Your task to perform on an android device: all mails in gmail Image 0: 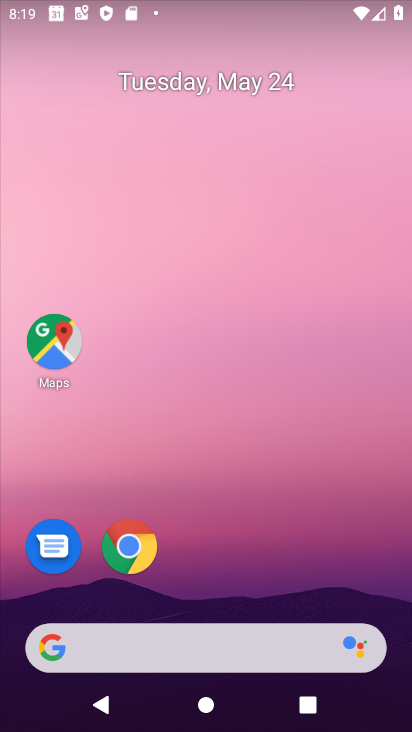
Step 0: drag from (208, 497) to (219, 39)
Your task to perform on an android device: all mails in gmail Image 1: 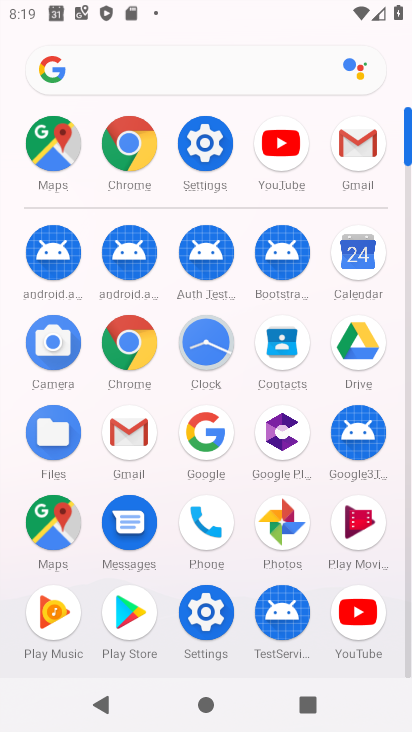
Step 1: click (352, 148)
Your task to perform on an android device: all mails in gmail Image 2: 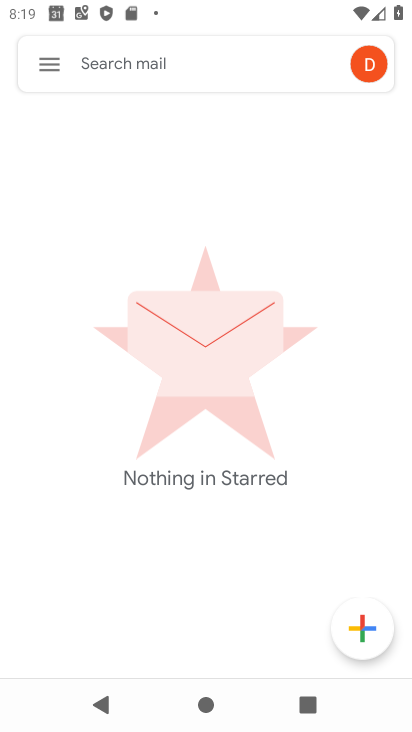
Step 2: click (45, 59)
Your task to perform on an android device: all mails in gmail Image 3: 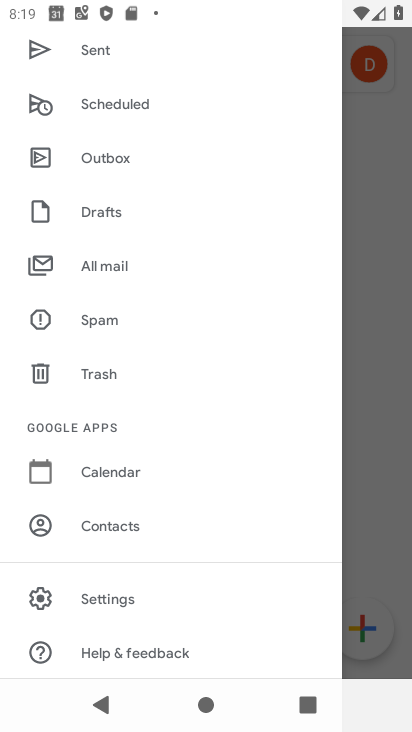
Step 3: click (94, 266)
Your task to perform on an android device: all mails in gmail Image 4: 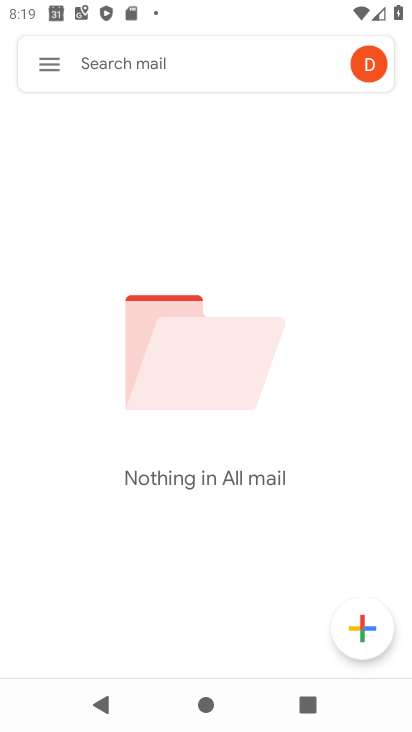
Step 4: task complete